Your task to perform on an android device: turn off javascript in the chrome app Image 0: 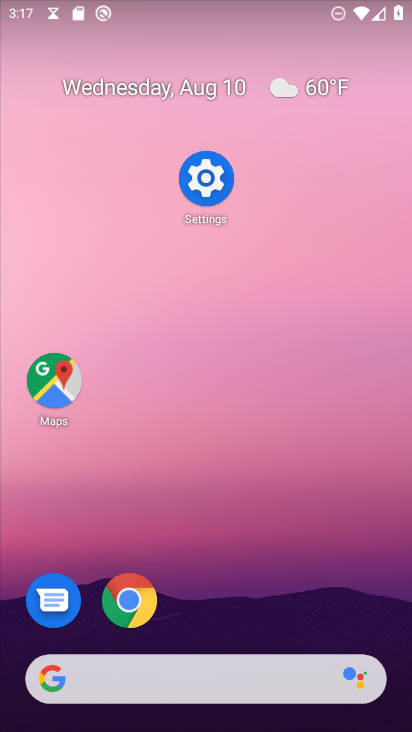
Step 0: press home button
Your task to perform on an android device: turn off javascript in the chrome app Image 1: 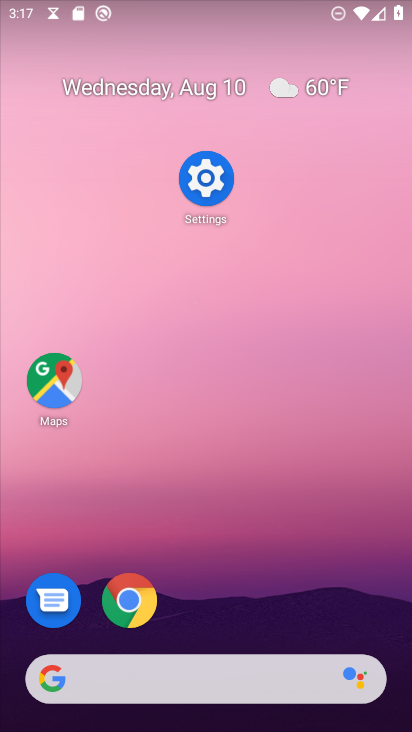
Step 1: click (133, 602)
Your task to perform on an android device: turn off javascript in the chrome app Image 2: 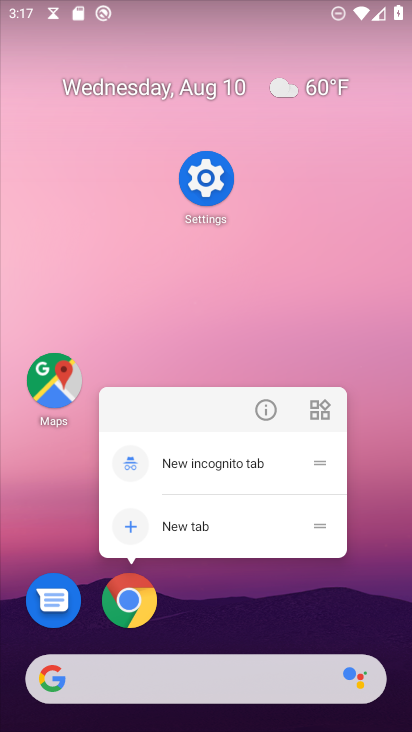
Step 2: click (133, 602)
Your task to perform on an android device: turn off javascript in the chrome app Image 3: 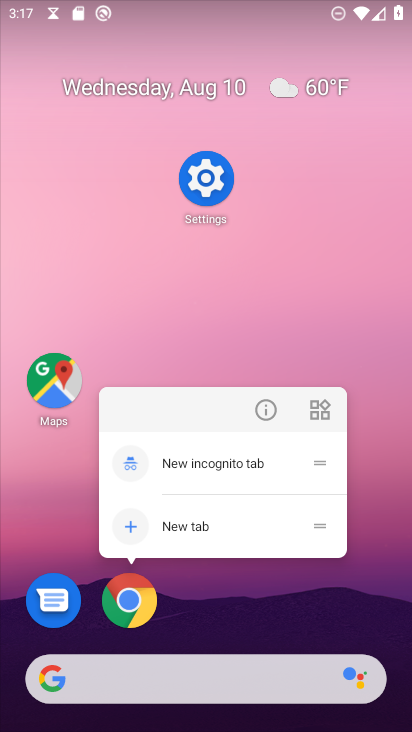
Step 3: click (133, 602)
Your task to perform on an android device: turn off javascript in the chrome app Image 4: 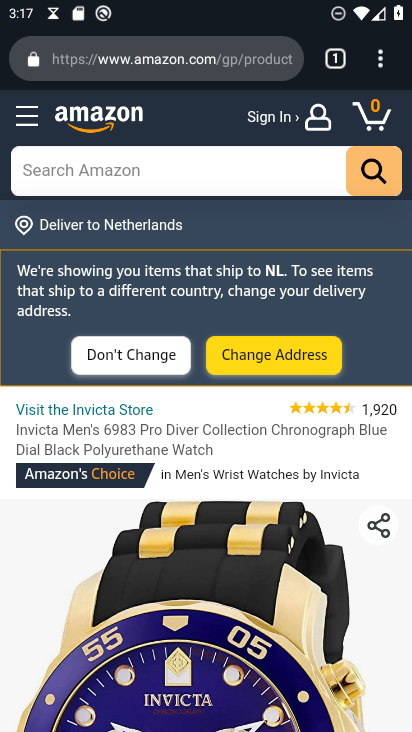
Step 4: drag from (381, 62) to (183, 627)
Your task to perform on an android device: turn off javascript in the chrome app Image 5: 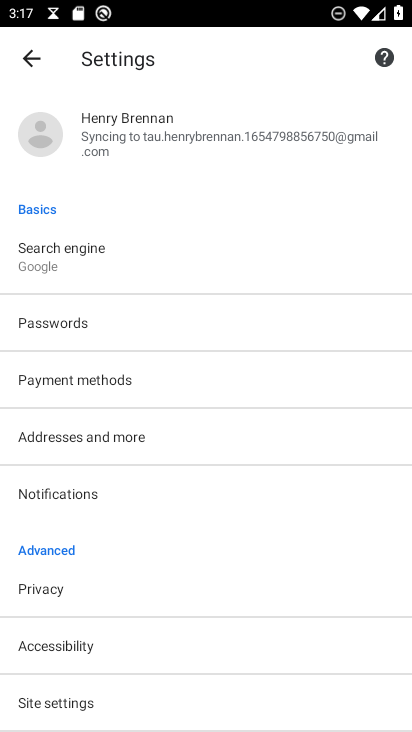
Step 5: click (64, 700)
Your task to perform on an android device: turn off javascript in the chrome app Image 6: 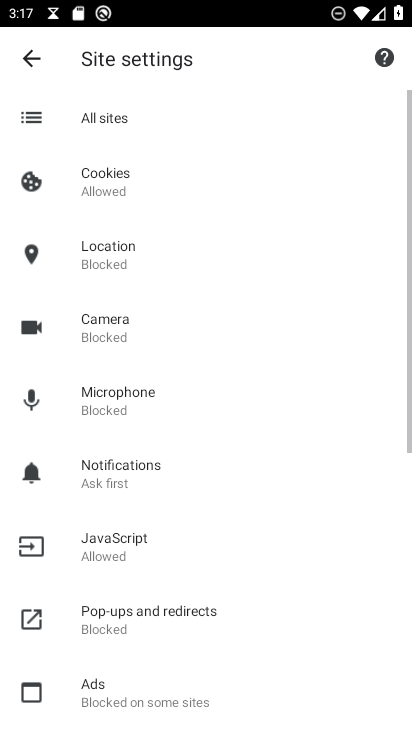
Step 6: click (128, 547)
Your task to perform on an android device: turn off javascript in the chrome app Image 7: 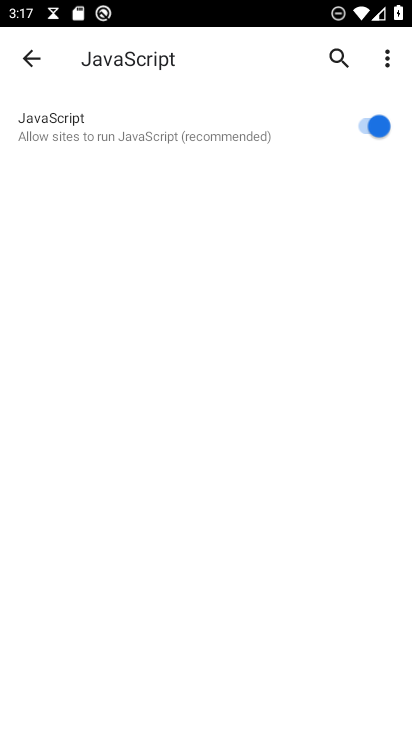
Step 7: click (371, 138)
Your task to perform on an android device: turn off javascript in the chrome app Image 8: 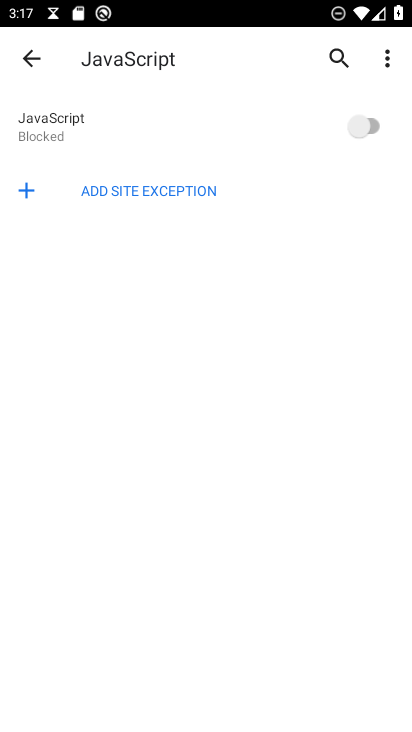
Step 8: task complete